Your task to perform on an android device: toggle airplane mode Image 0: 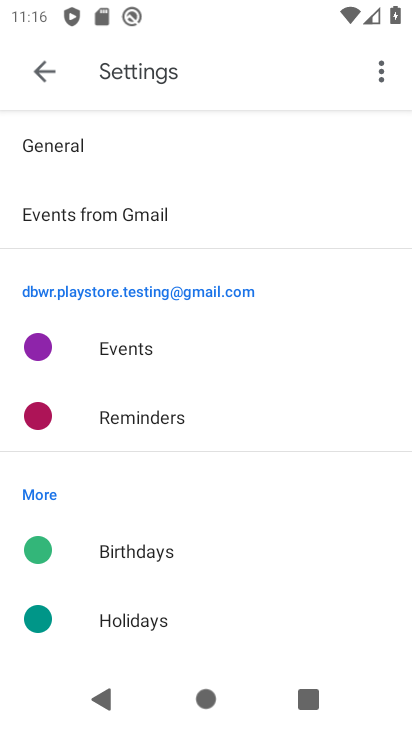
Step 0: press back button
Your task to perform on an android device: toggle airplane mode Image 1: 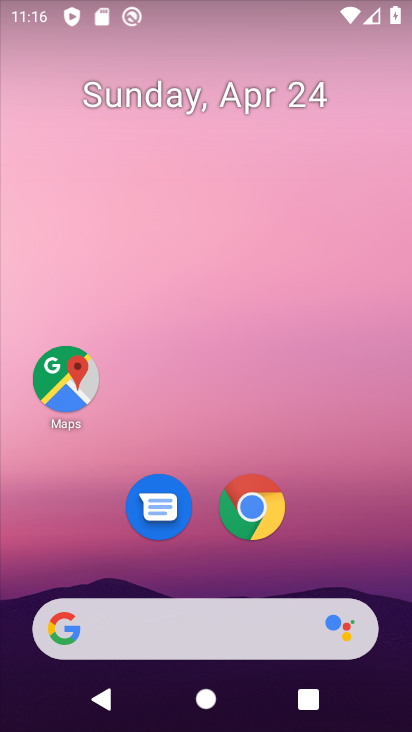
Step 1: drag from (369, 497) to (311, 125)
Your task to perform on an android device: toggle airplane mode Image 2: 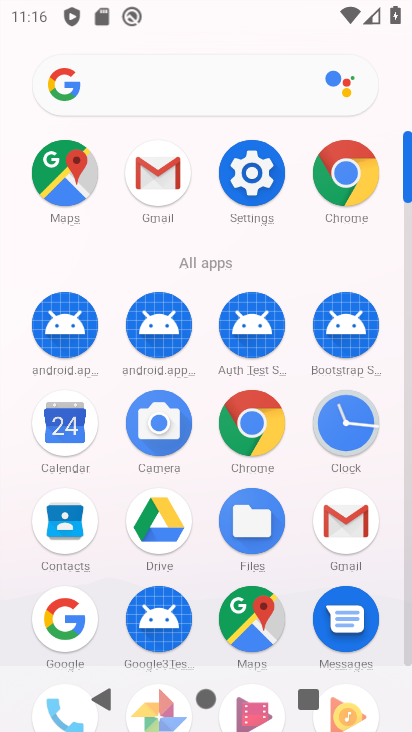
Step 2: click (248, 163)
Your task to perform on an android device: toggle airplane mode Image 3: 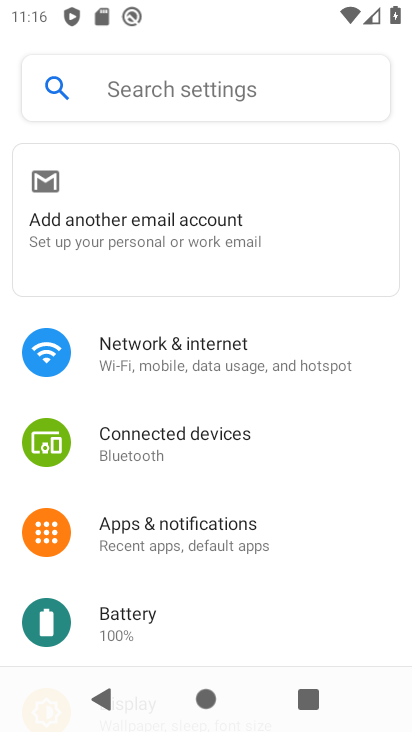
Step 3: click (255, 356)
Your task to perform on an android device: toggle airplane mode Image 4: 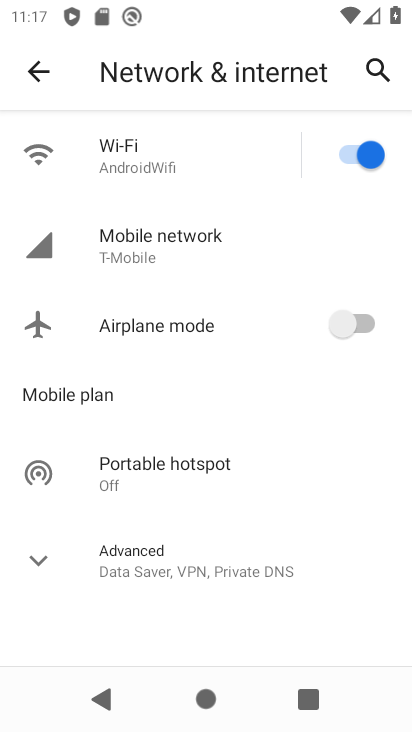
Step 4: click (350, 329)
Your task to perform on an android device: toggle airplane mode Image 5: 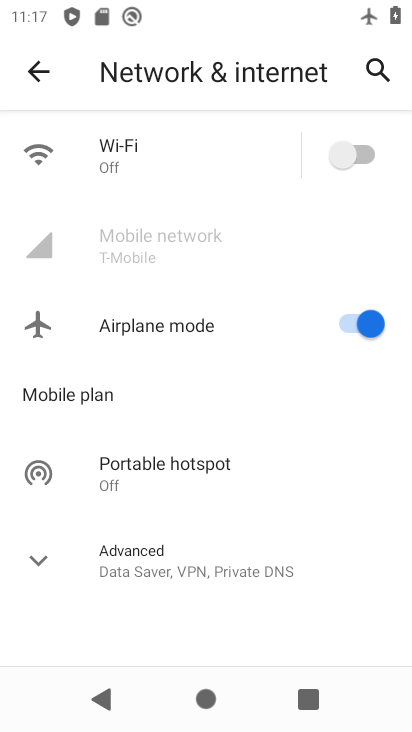
Step 5: task complete